Your task to perform on an android device: Check the news Image 0: 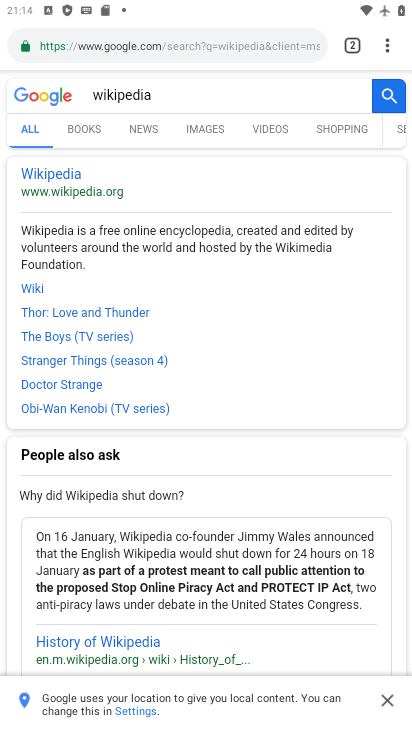
Step 0: press home button
Your task to perform on an android device: Check the news Image 1: 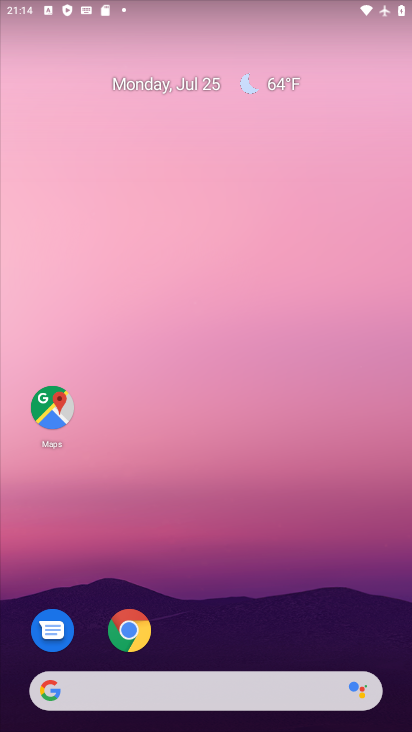
Step 1: task complete